Your task to perform on an android device: turn off location Image 0: 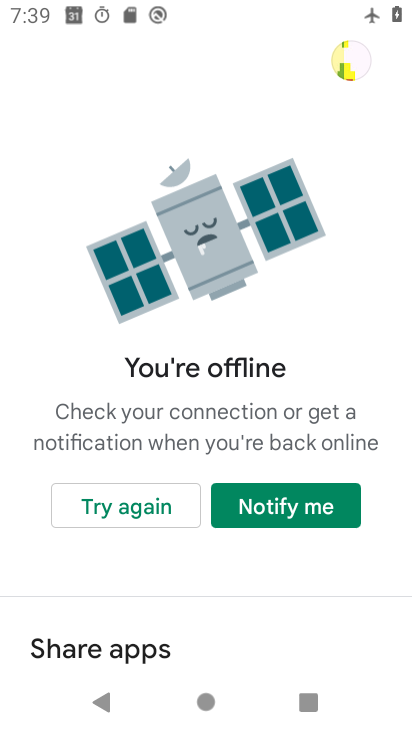
Step 0: press home button
Your task to perform on an android device: turn off location Image 1: 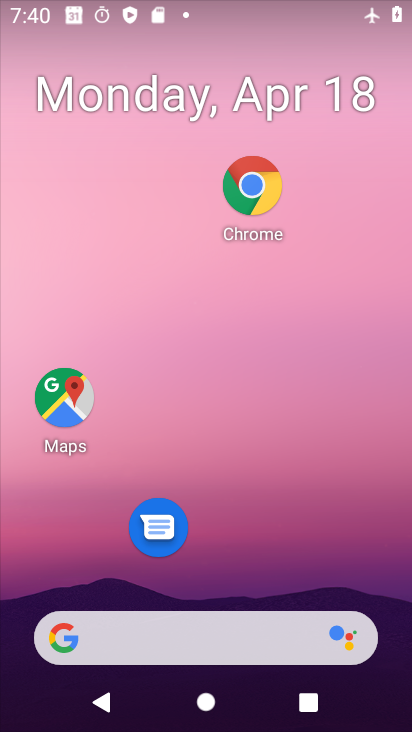
Step 1: drag from (282, 508) to (288, 46)
Your task to perform on an android device: turn off location Image 2: 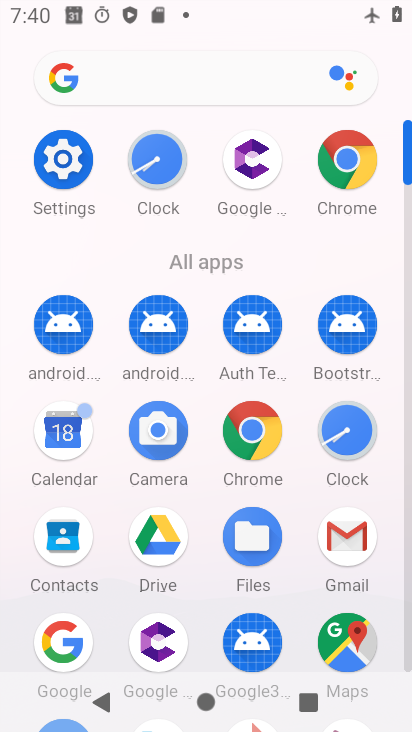
Step 2: click (60, 158)
Your task to perform on an android device: turn off location Image 3: 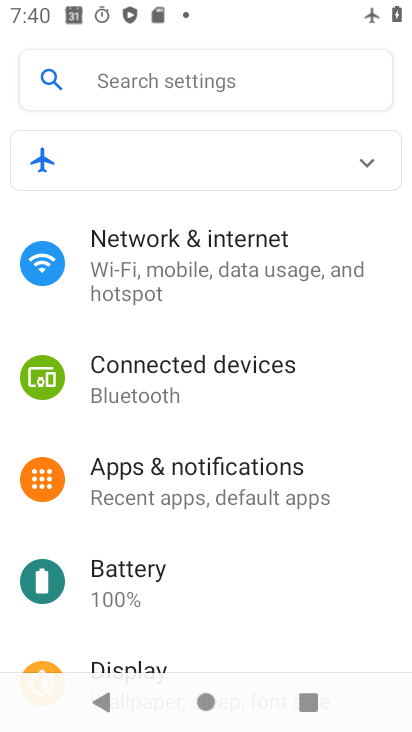
Step 3: drag from (217, 605) to (261, 173)
Your task to perform on an android device: turn off location Image 4: 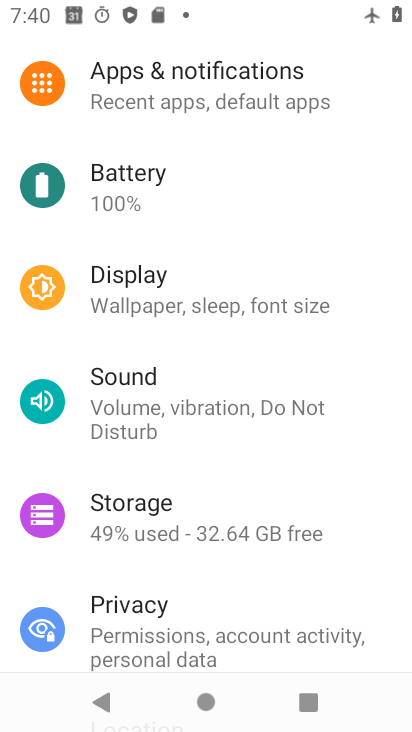
Step 4: drag from (236, 484) to (340, 103)
Your task to perform on an android device: turn off location Image 5: 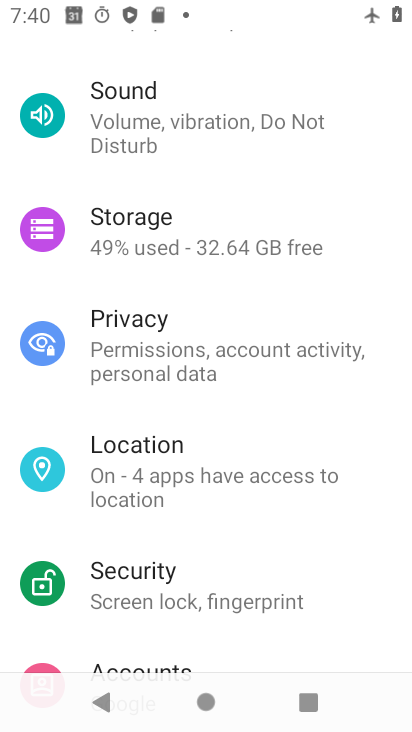
Step 5: click (185, 447)
Your task to perform on an android device: turn off location Image 6: 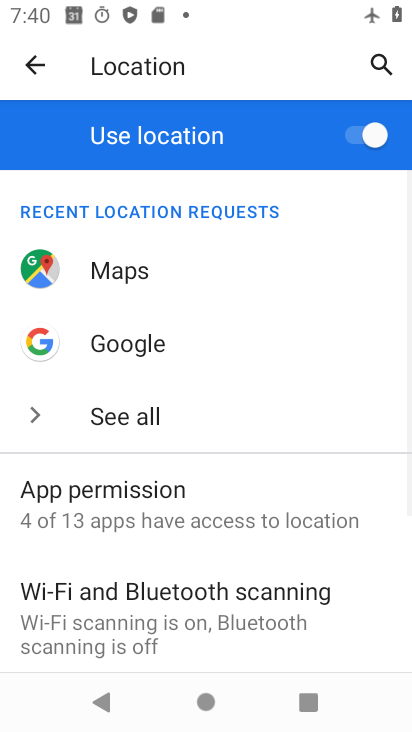
Step 6: drag from (206, 580) to (296, 187)
Your task to perform on an android device: turn off location Image 7: 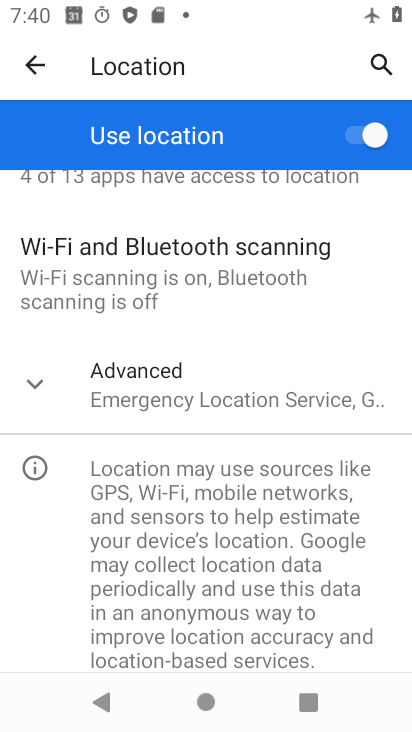
Step 7: click (203, 402)
Your task to perform on an android device: turn off location Image 8: 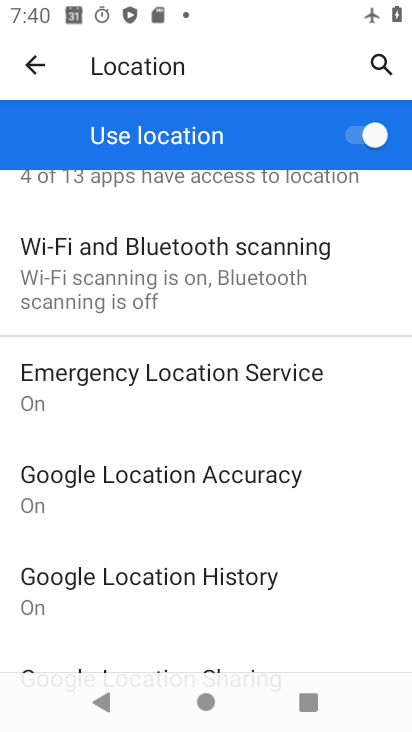
Step 8: drag from (267, 277) to (243, 672)
Your task to perform on an android device: turn off location Image 9: 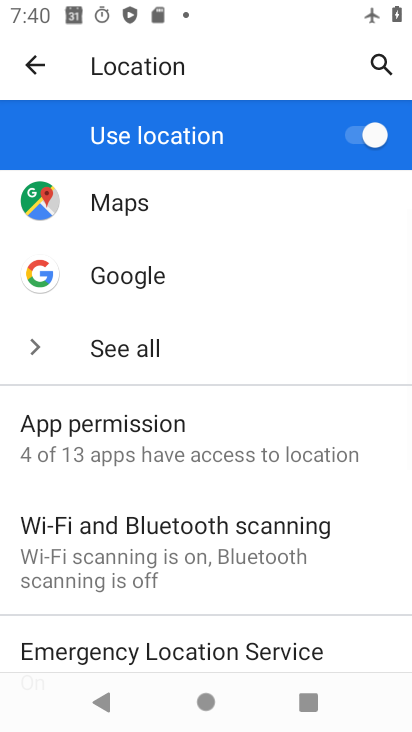
Step 9: drag from (194, 243) to (210, 613)
Your task to perform on an android device: turn off location Image 10: 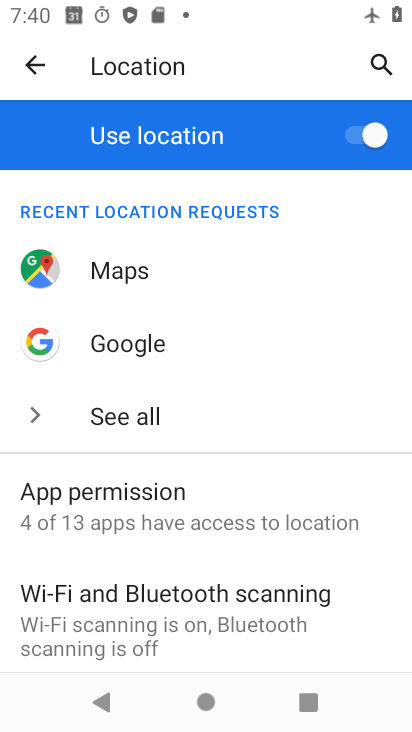
Step 10: click (347, 135)
Your task to perform on an android device: turn off location Image 11: 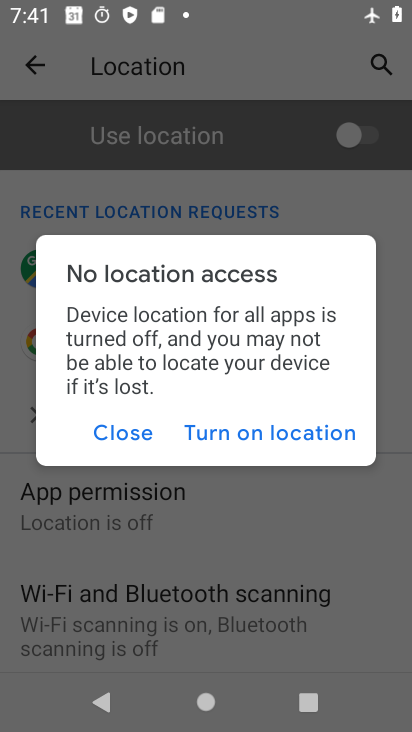
Step 11: click (108, 424)
Your task to perform on an android device: turn off location Image 12: 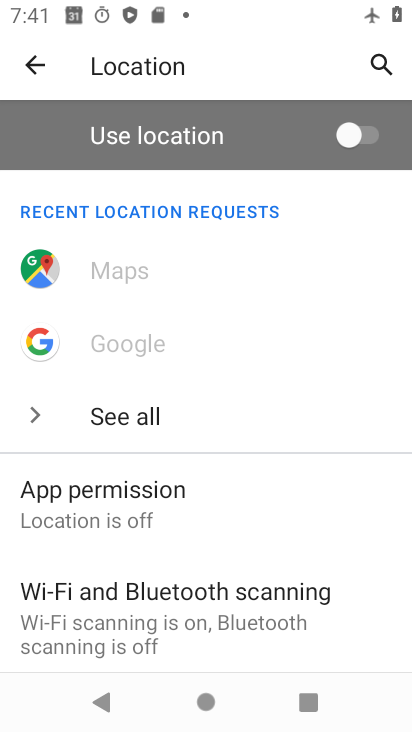
Step 12: task complete